Your task to perform on an android device: open sync settings in chrome Image 0: 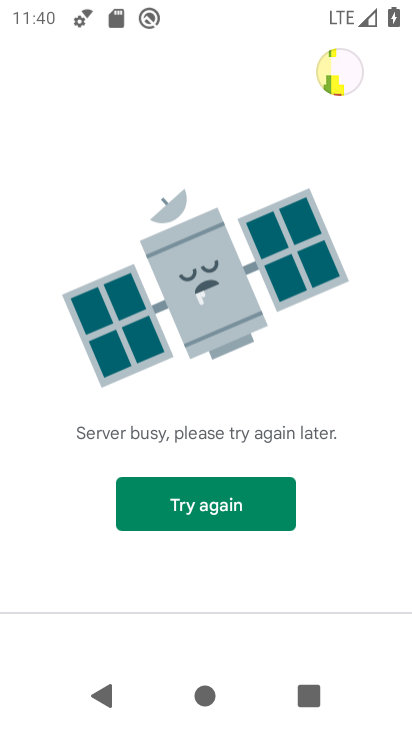
Step 0: press home button
Your task to perform on an android device: open sync settings in chrome Image 1: 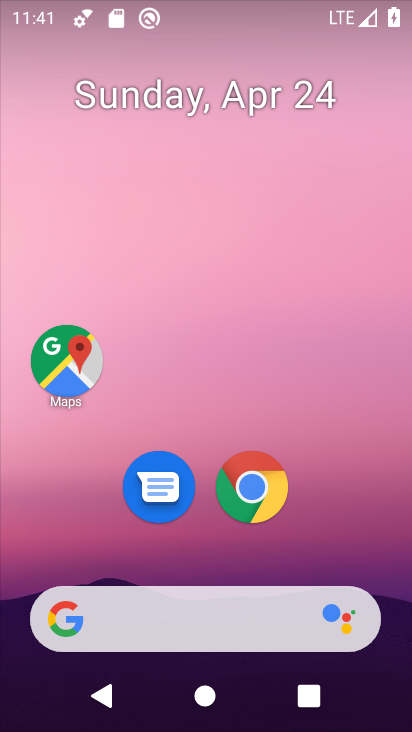
Step 1: click (256, 513)
Your task to perform on an android device: open sync settings in chrome Image 2: 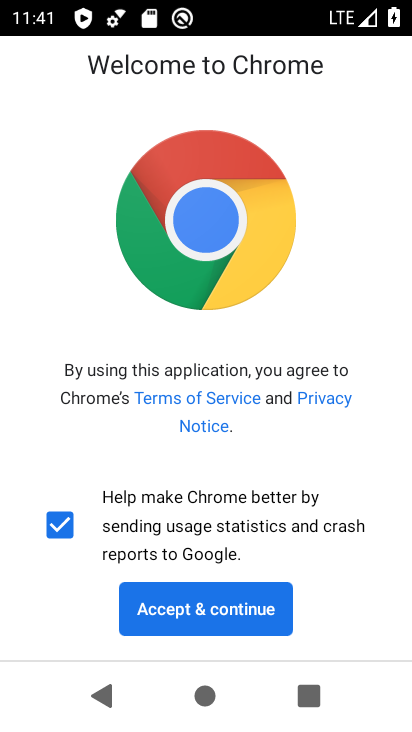
Step 2: click (189, 612)
Your task to perform on an android device: open sync settings in chrome Image 3: 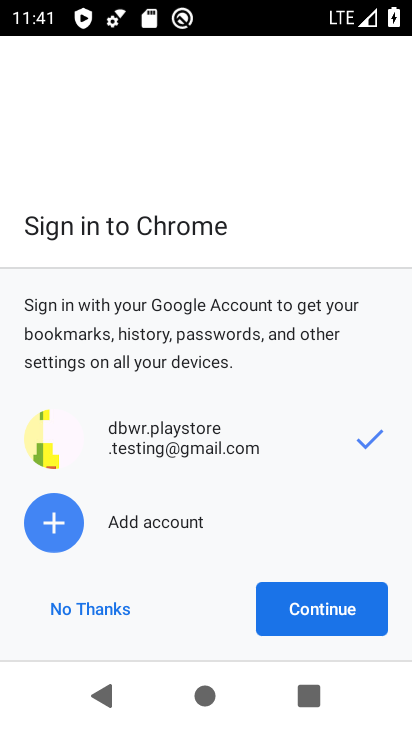
Step 3: click (281, 610)
Your task to perform on an android device: open sync settings in chrome Image 4: 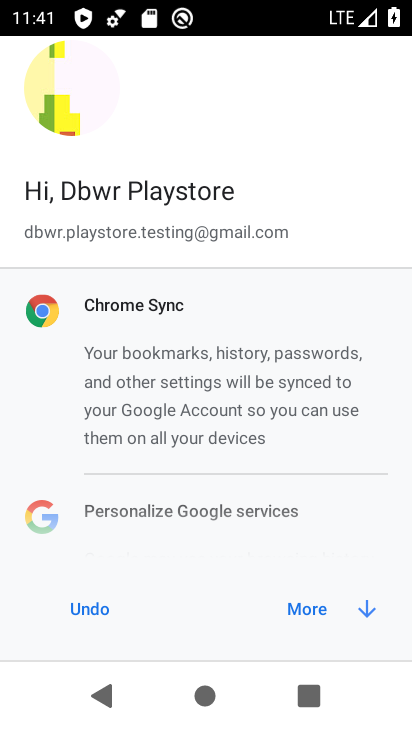
Step 4: click (281, 610)
Your task to perform on an android device: open sync settings in chrome Image 5: 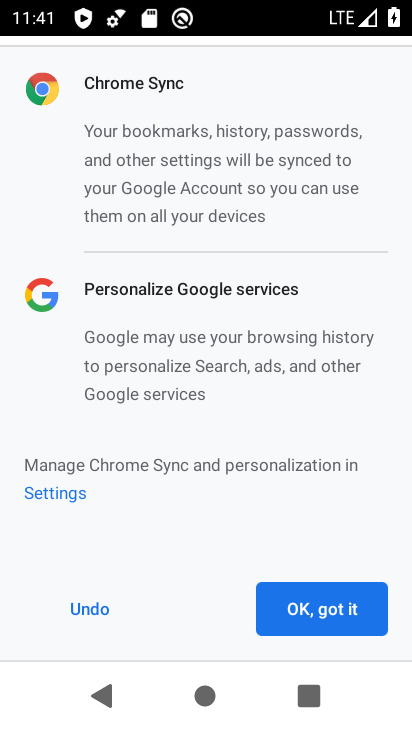
Step 5: click (281, 610)
Your task to perform on an android device: open sync settings in chrome Image 6: 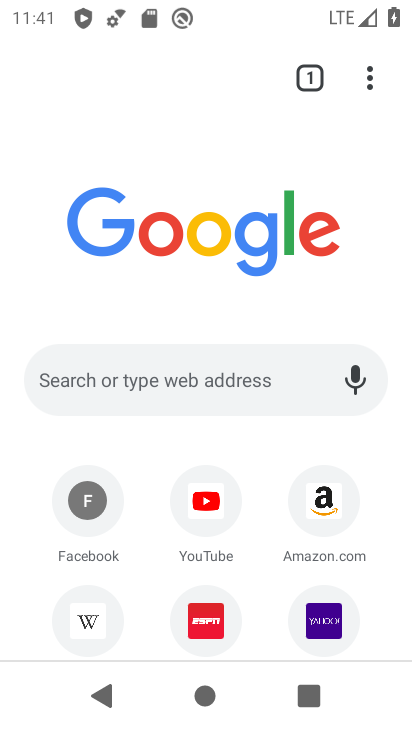
Step 6: click (375, 84)
Your task to perform on an android device: open sync settings in chrome Image 7: 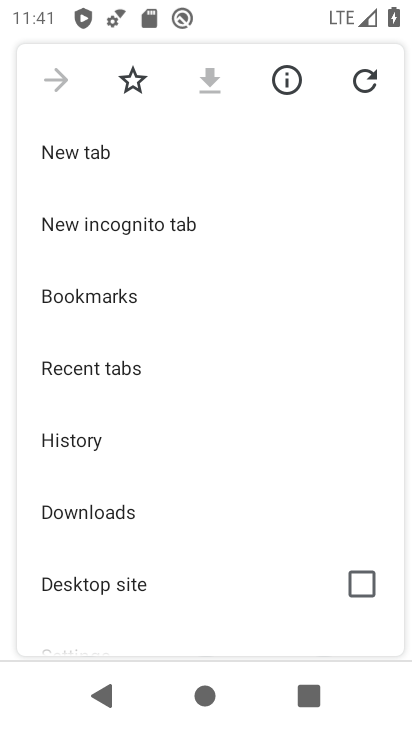
Step 7: drag from (202, 564) to (289, 83)
Your task to perform on an android device: open sync settings in chrome Image 8: 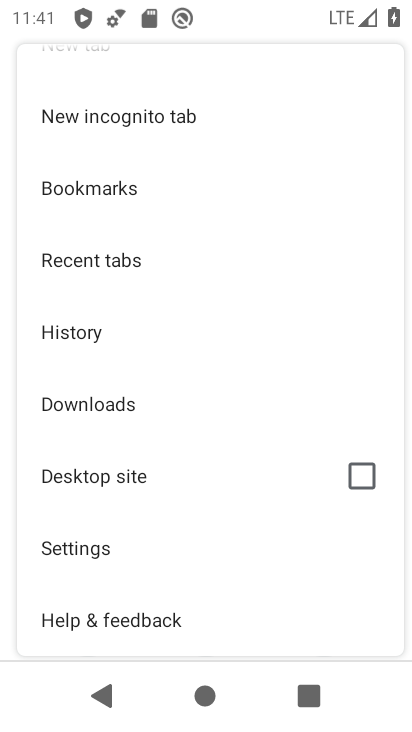
Step 8: click (75, 542)
Your task to perform on an android device: open sync settings in chrome Image 9: 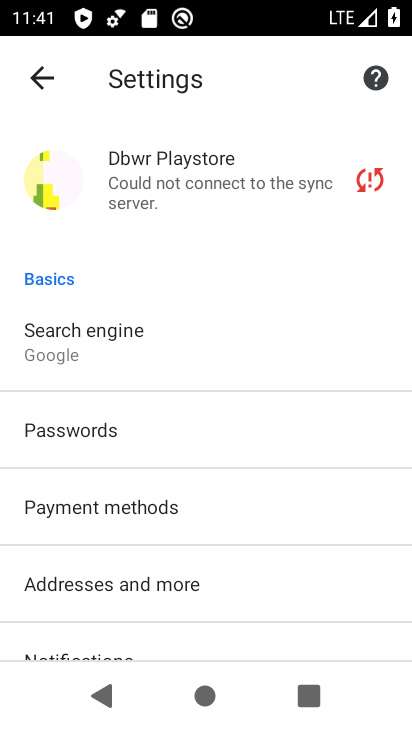
Step 9: drag from (131, 511) to (209, 168)
Your task to perform on an android device: open sync settings in chrome Image 10: 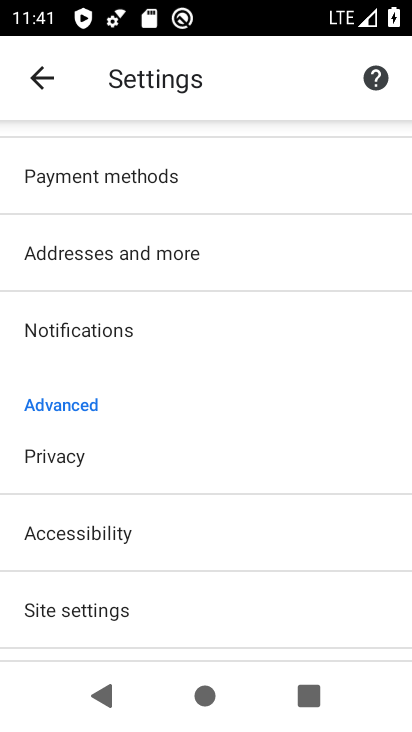
Step 10: click (136, 590)
Your task to perform on an android device: open sync settings in chrome Image 11: 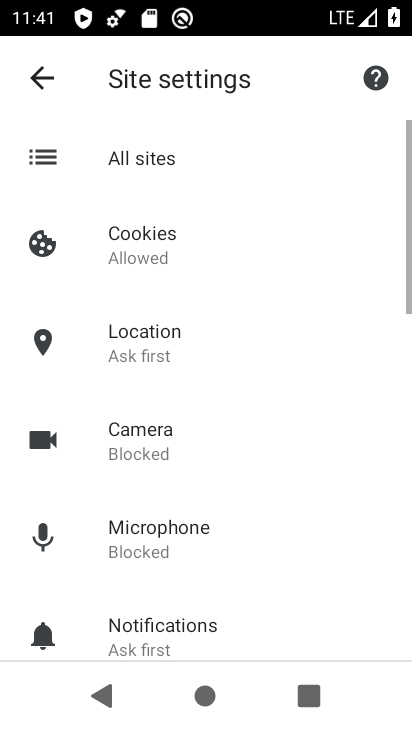
Step 11: drag from (155, 480) to (294, 59)
Your task to perform on an android device: open sync settings in chrome Image 12: 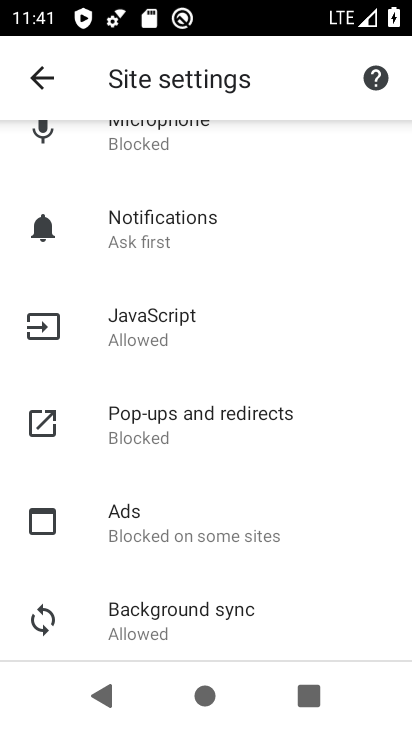
Step 12: click (181, 626)
Your task to perform on an android device: open sync settings in chrome Image 13: 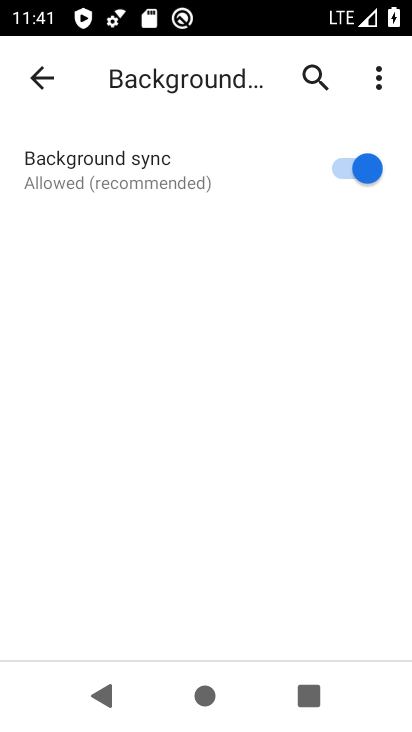
Step 13: task complete